Your task to perform on an android device: change the clock display to show seconds Image 0: 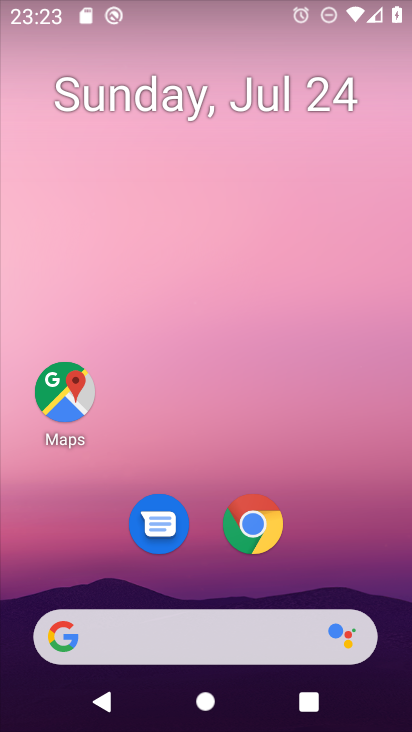
Step 0: press home button
Your task to perform on an android device: change the clock display to show seconds Image 1: 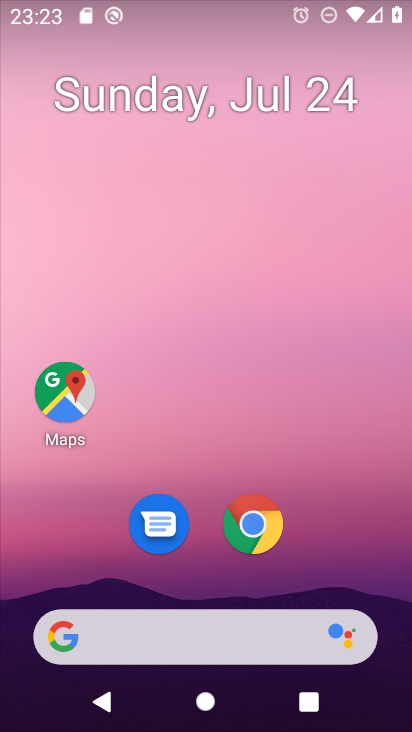
Step 1: drag from (201, 643) to (316, 92)
Your task to perform on an android device: change the clock display to show seconds Image 2: 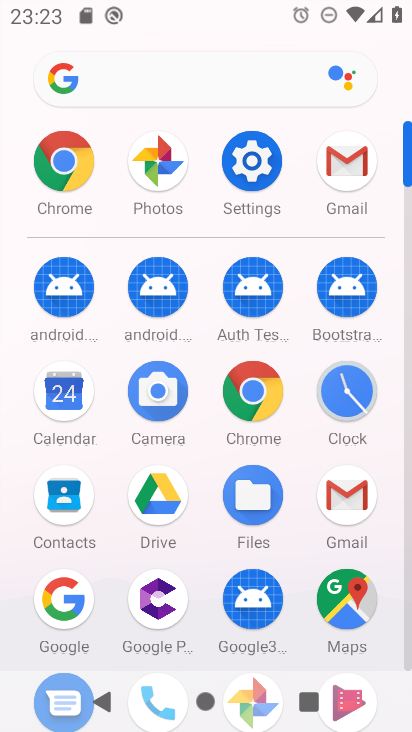
Step 2: click (348, 396)
Your task to perform on an android device: change the clock display to show seconds Image 3: 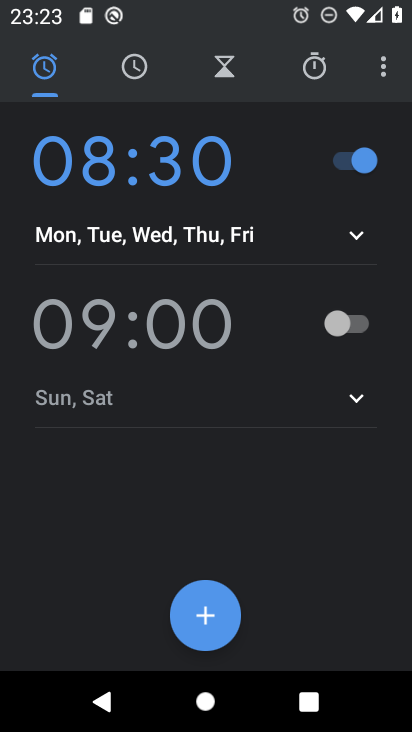
Step 3: click (384, 68)
Your task to perform on an android device: change the clock display to show seconds Image 4: 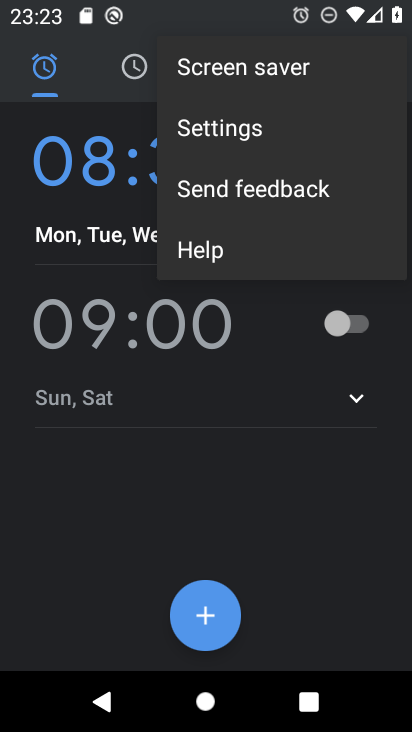
Step 4: click (191, 128)
Your task to perform on an android device: change the clock display to show seconds Image 5: 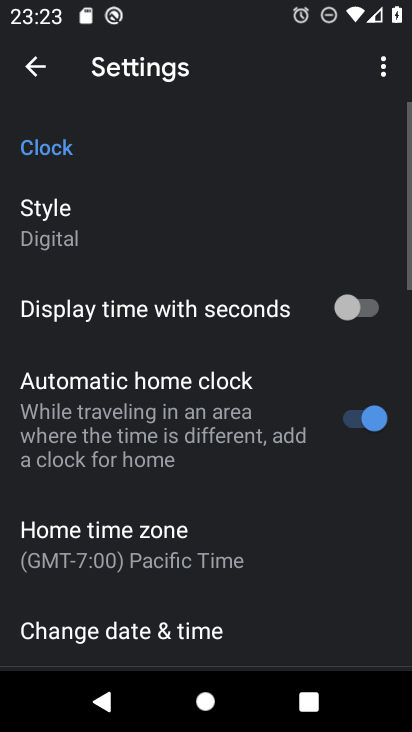
Step 5: click (368, 313)
Your task to perform on an android device: change the clock display to show seconds Image 6: 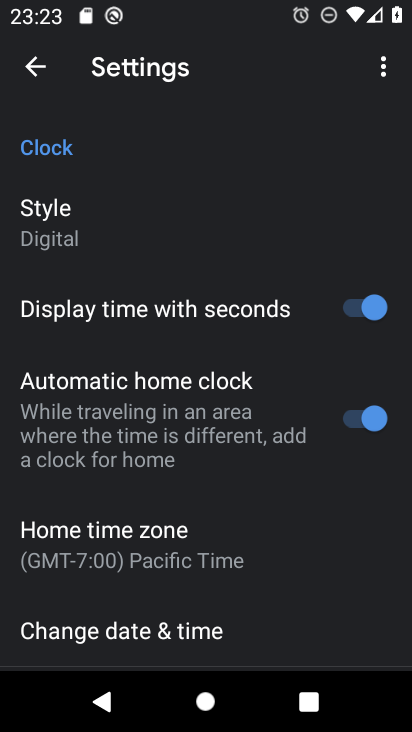
Step 6: task complete